Your task to perform on an android device: set the timer Image 0: 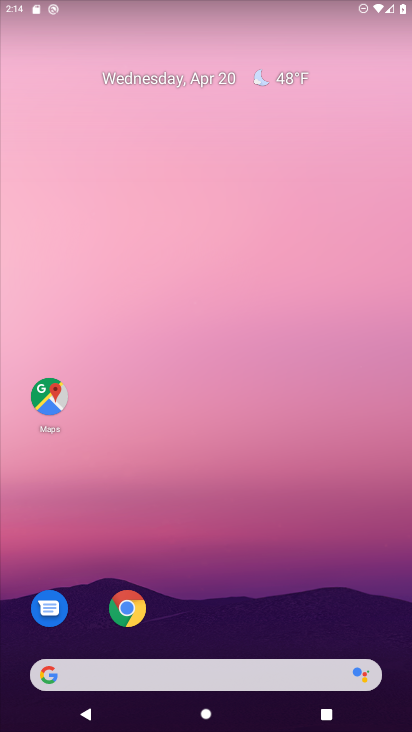
Step 0: drag from (271, 593) to (197, 176)
Your task to perform on an android device: set the timer Image 1: 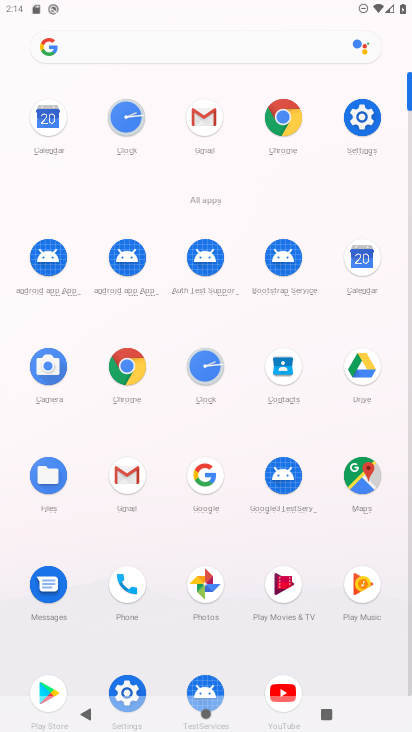
Step 1: click (142, 124)
Your task to perform on an android device: set the timer Image 2: 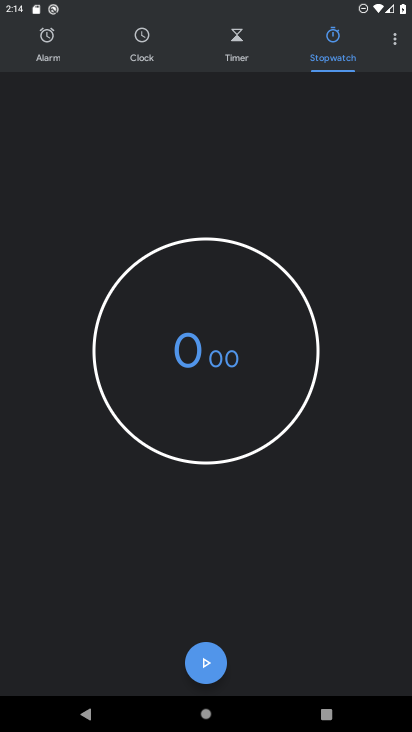
Step 2: click (210, 49)
Your task to perform on an android device: set the timer Image 3: 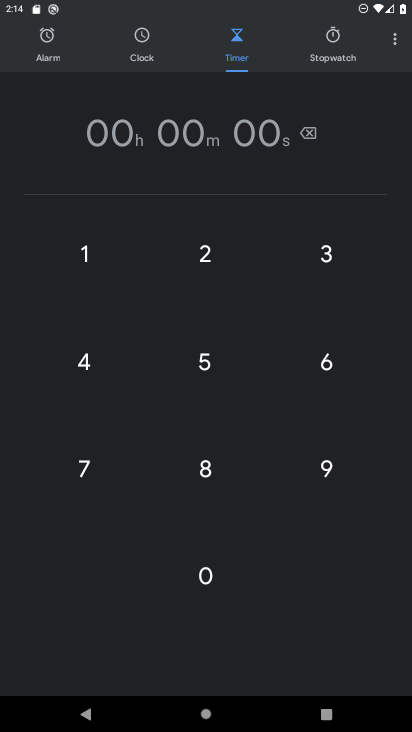
Step 3: task complete